Your task to perform on an android device: Open sound settings Image 0: 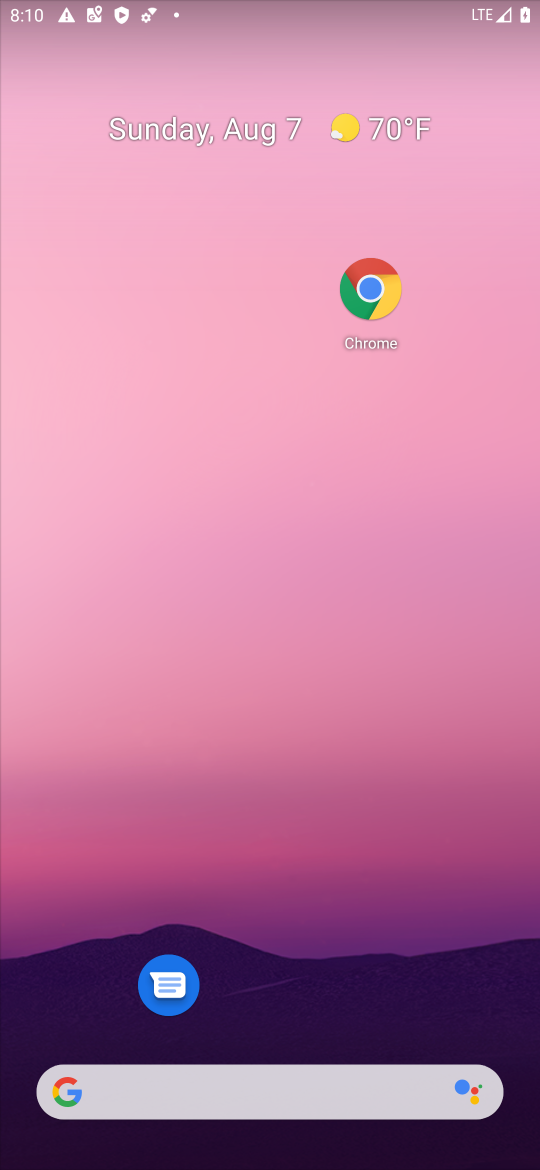
Step 0: drag from (302, 1078) to (288, 516)
Your task to perform on an android device: Open sound settings Image 1: 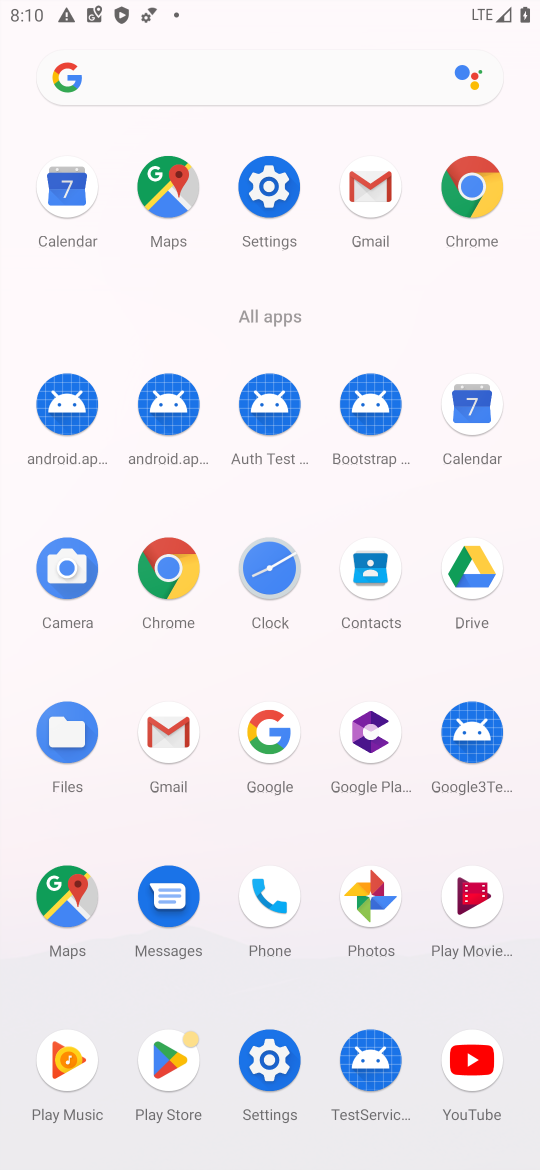
Step 1: click (235, 180)
Your task to perform on an android device: Open sound settings Image 2: 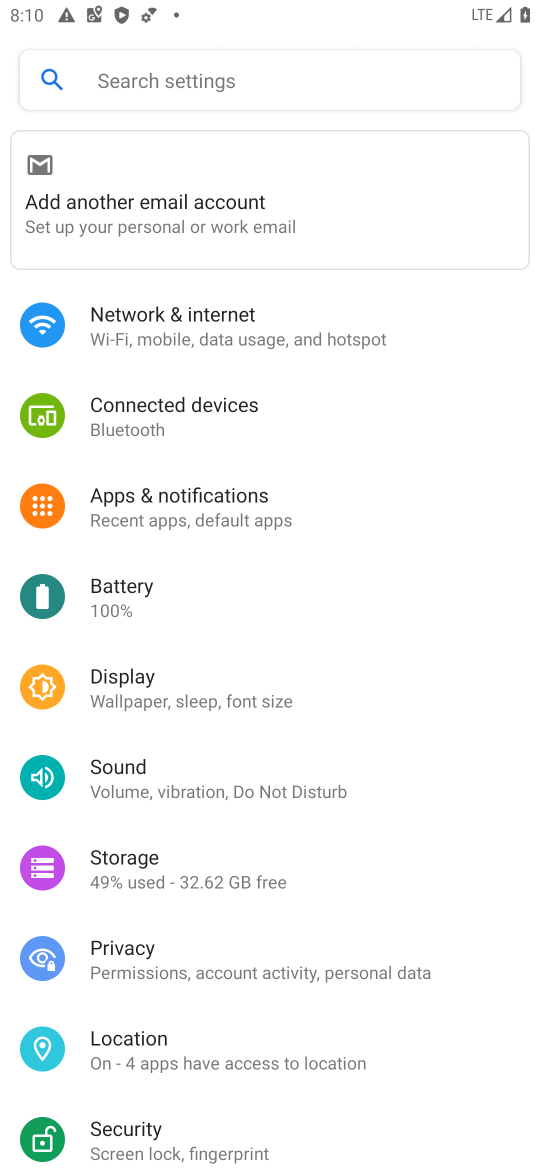
Step 2: click (168, 789)
Your task to perform on an android device: Open sound settings Image 3: 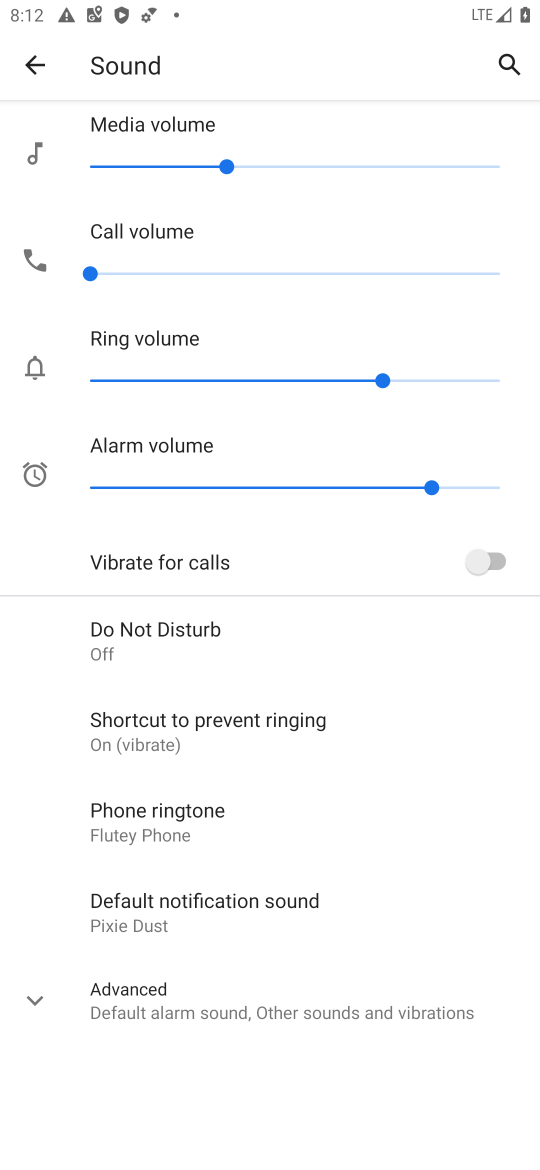
Step 3: task complete